Your task to perform on an android device: toggle sleep mode Image 0: 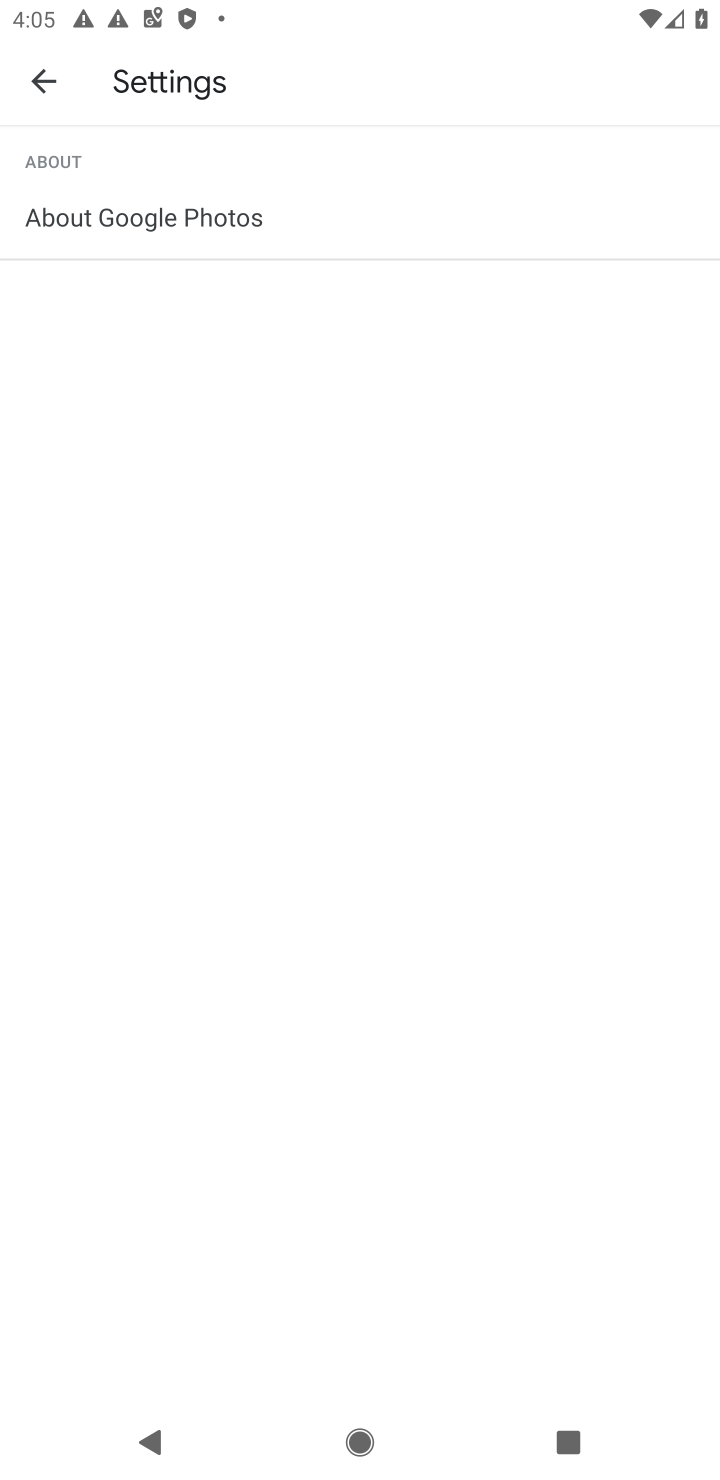
Step 0: press home button
Your task to perform on an android device: toggle sleep mode Image 1: 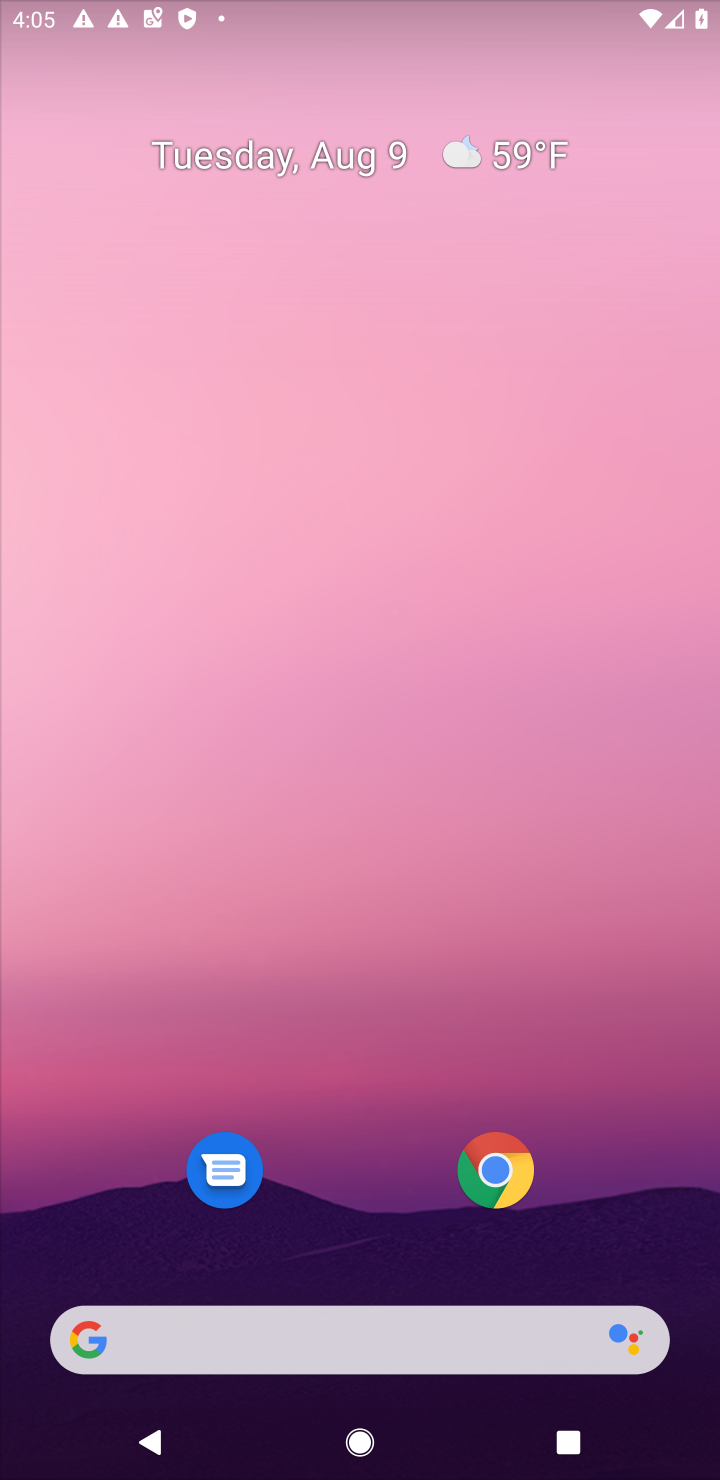
Step 1: drag from (342, 1142) to (366, 62)
Your task to perform on an android device: toggle sleep mode Image 2: 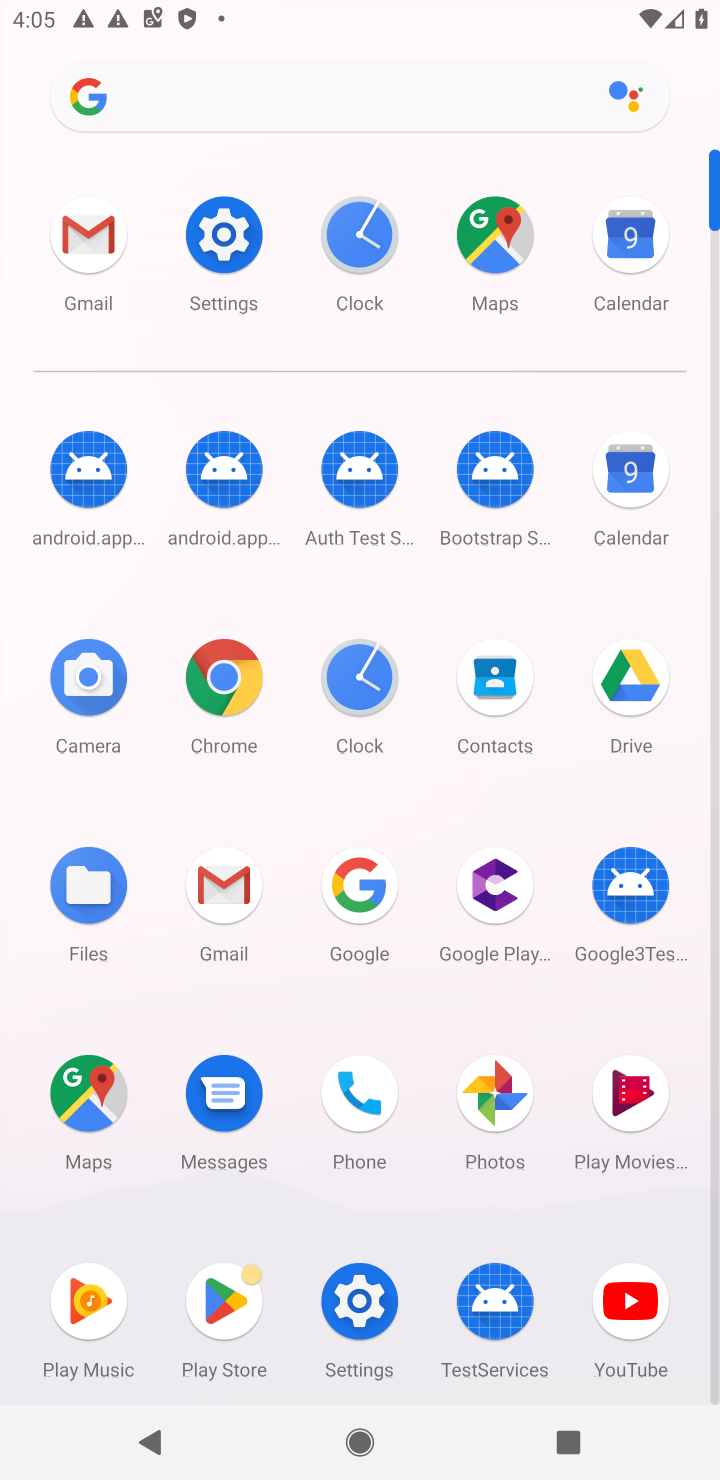
Step 2: click (207, 253)
Your task to perform on an android device: toggle sleep mode Image 3: 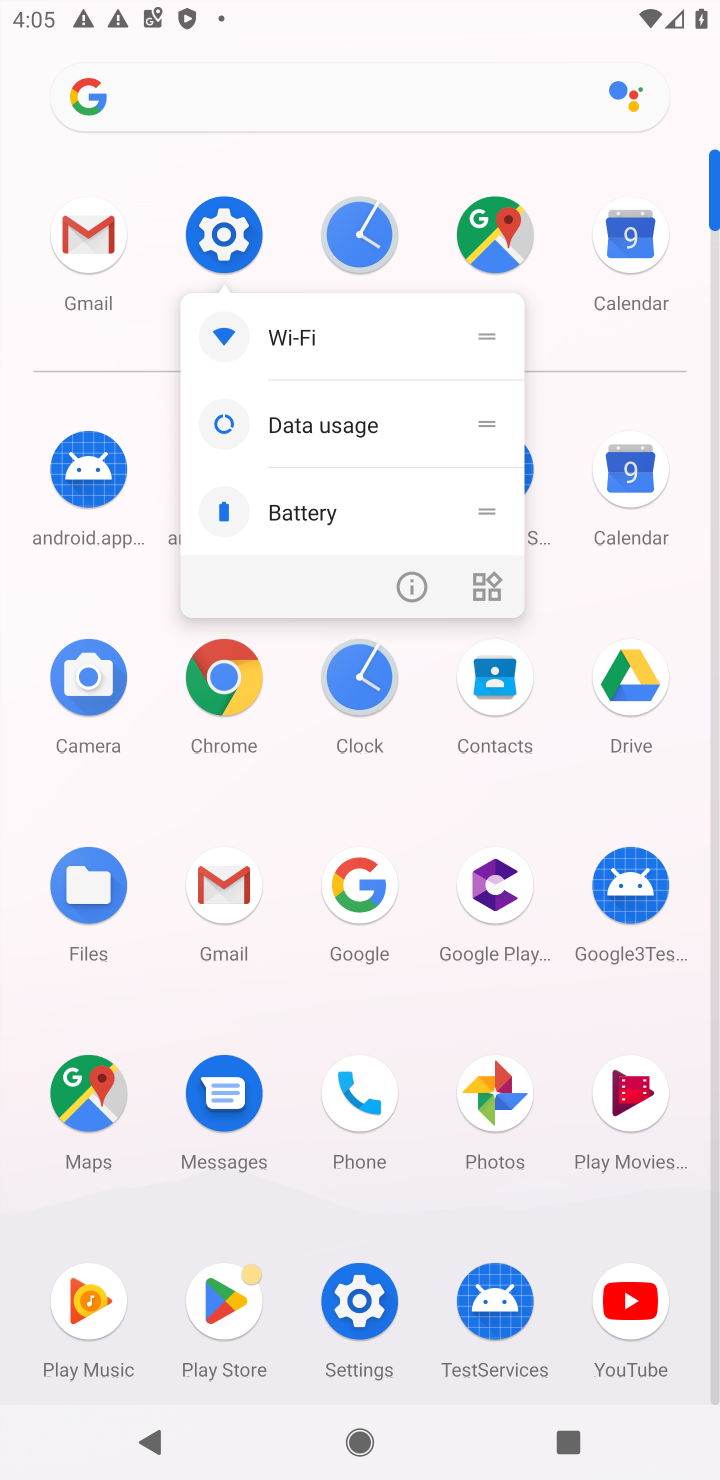
Step 3: click (222, 235)
Your task to perform on an android device: toggle sleep mode Image 4: 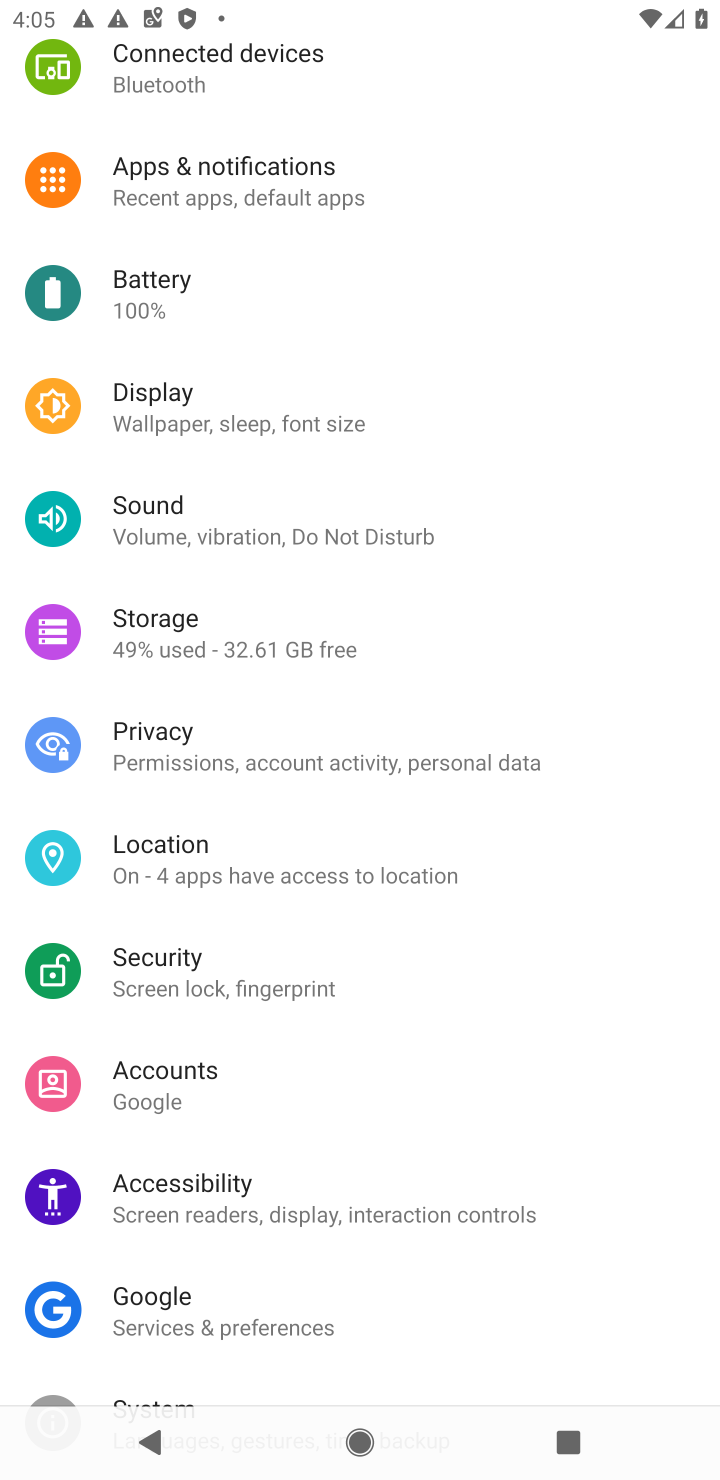
Step 4: click (158, 403)
Your task to perform on an android device: toggle sleep mode Image 5: 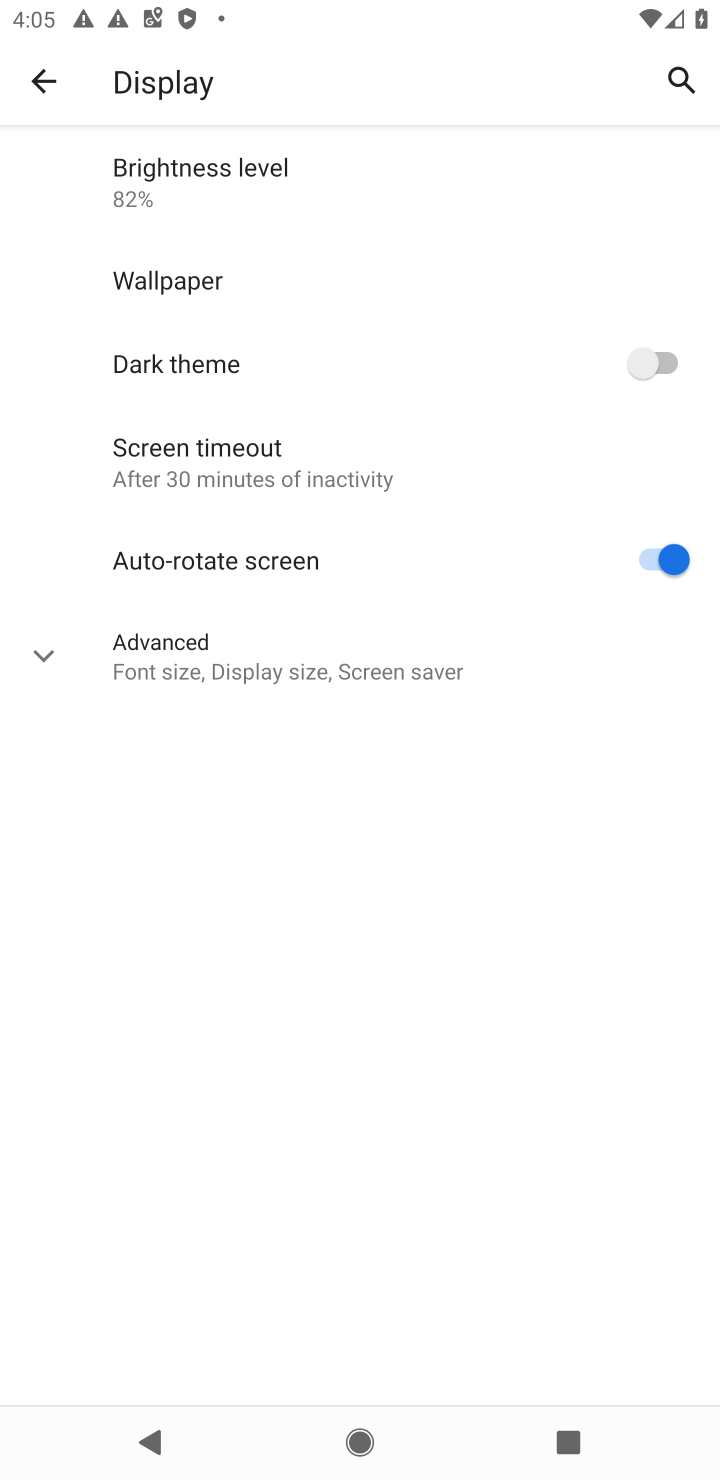
Step 5: click (56, 636)
Your task to perform on an android device: toggle sleep mode Image 6: 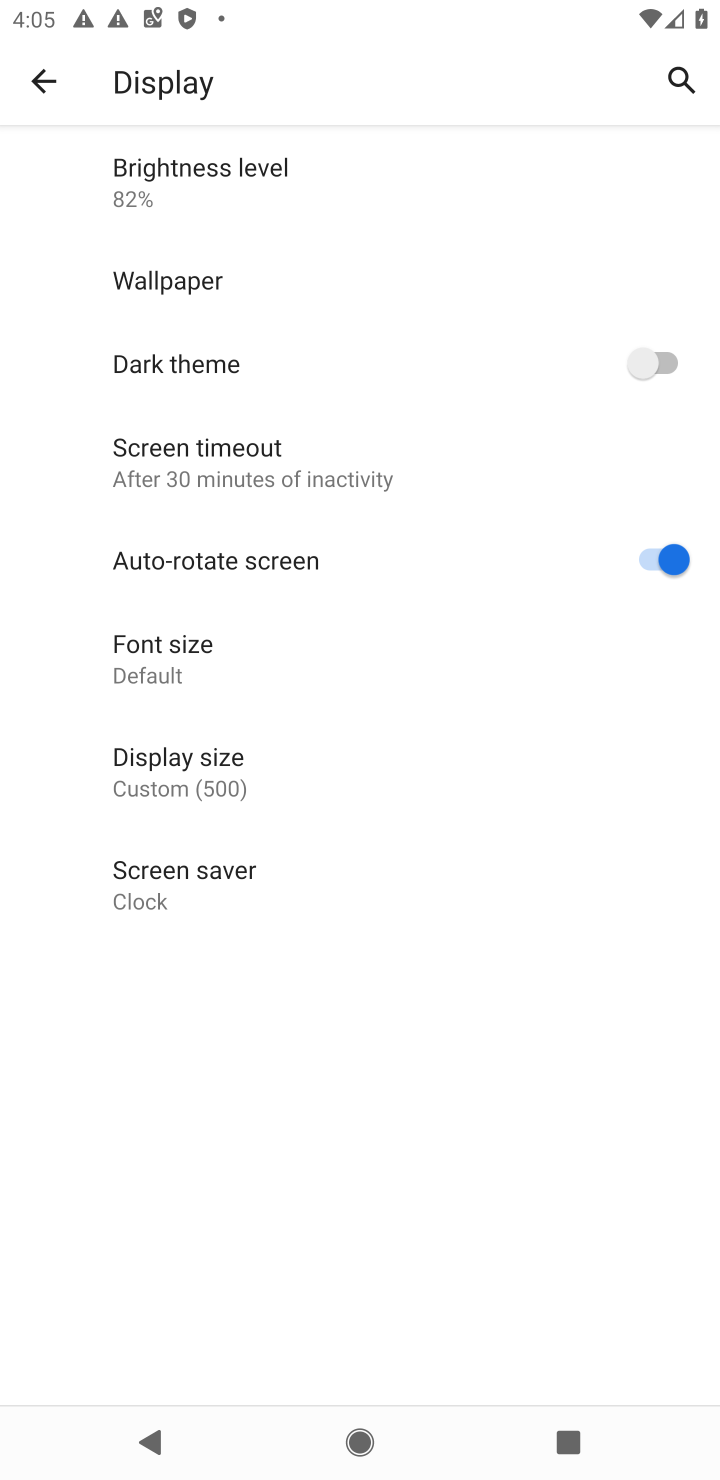
Step 6: task complete